Your task to perform on an android device: check battery use Image 0: 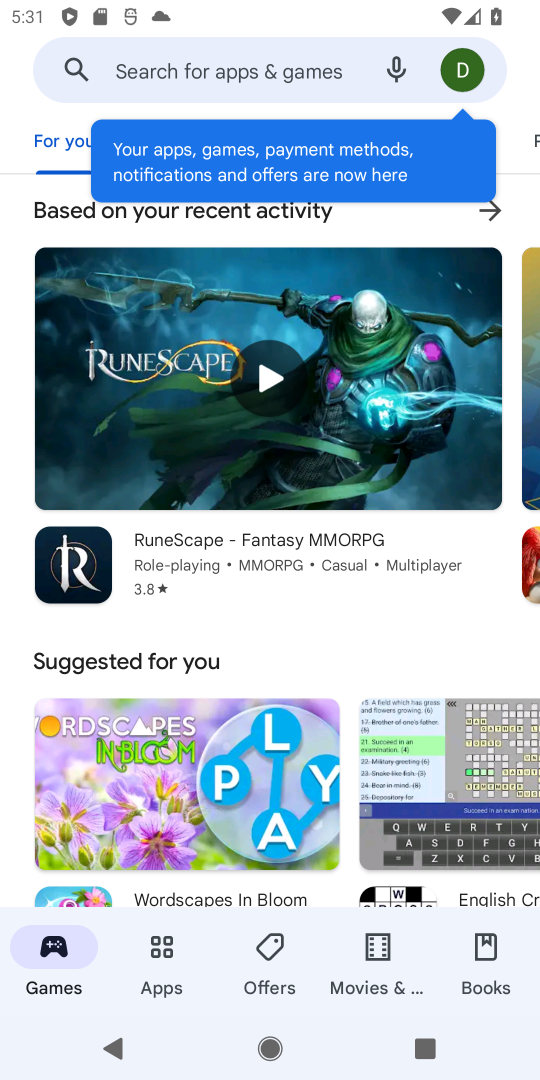
Step 0: press back button
Your task to perform on an android device: check battery use Image 1: 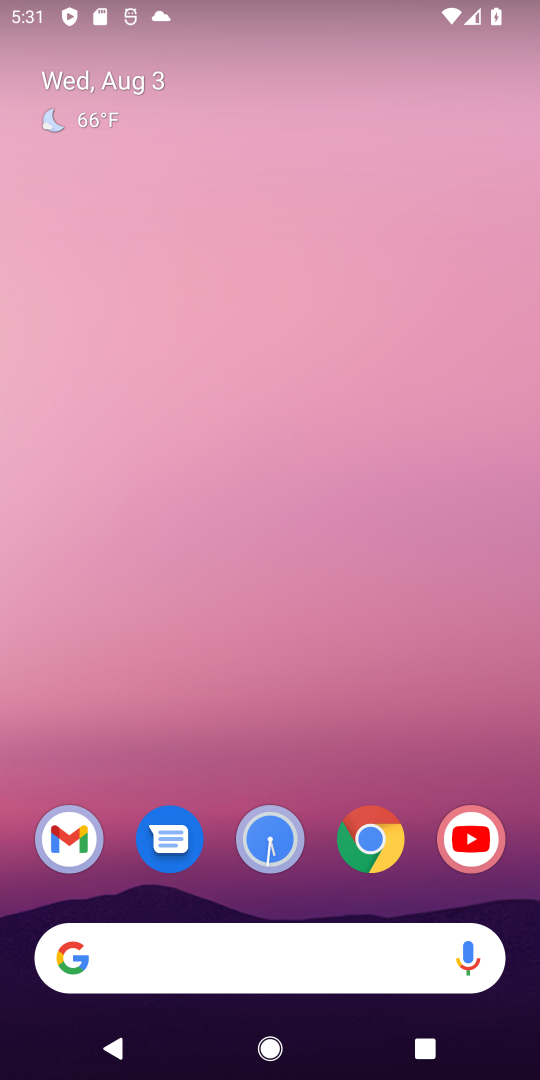
Step 1: drag from (308, 588) to (391, 11)
Your task to perform on an android device: check battery use Image 2: 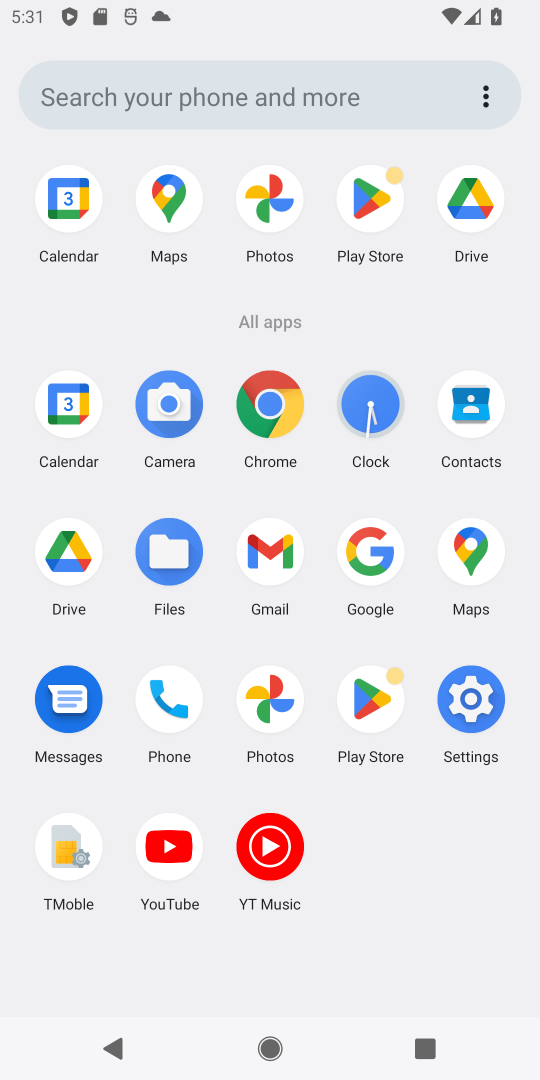
Step 2: click (481, 709)
Your task to perform on an android device: check battery use Image 3: 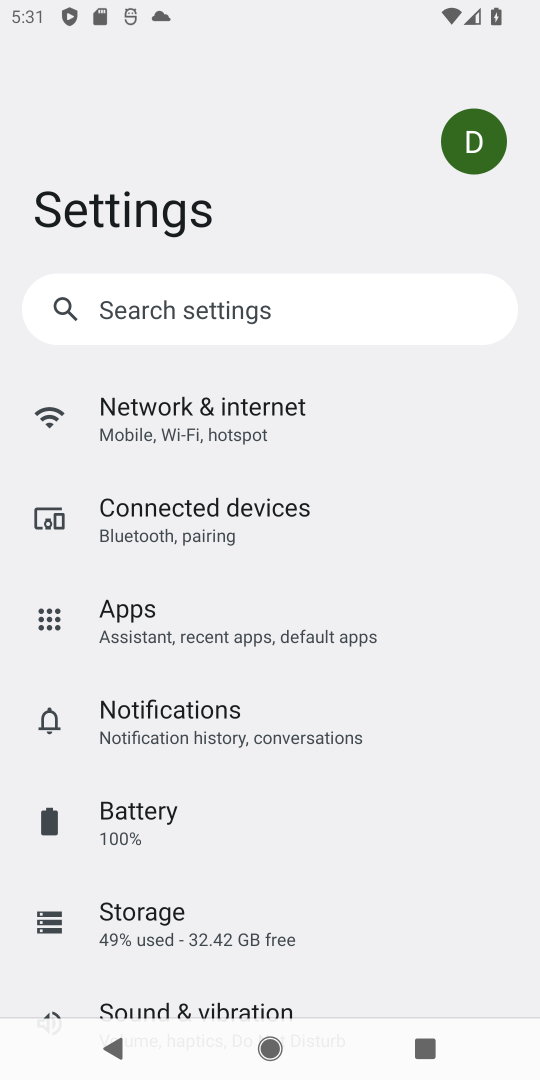
Step 3: click (147, 824)
Your task to perform on an android device: check battery use Image 4: 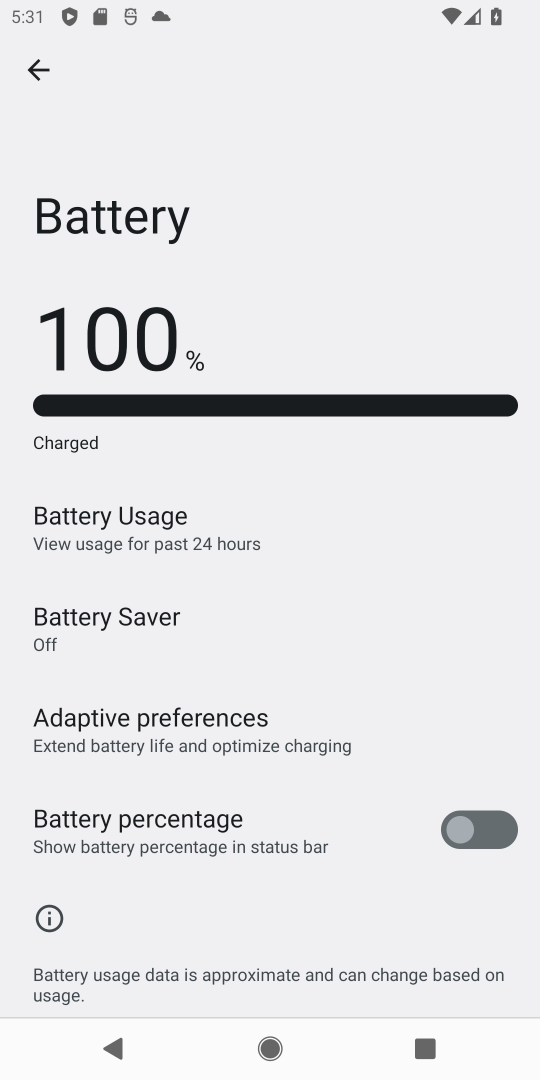
Step 4: click (210, 550)
Your task to perform on an android device: check battery use Image 5: 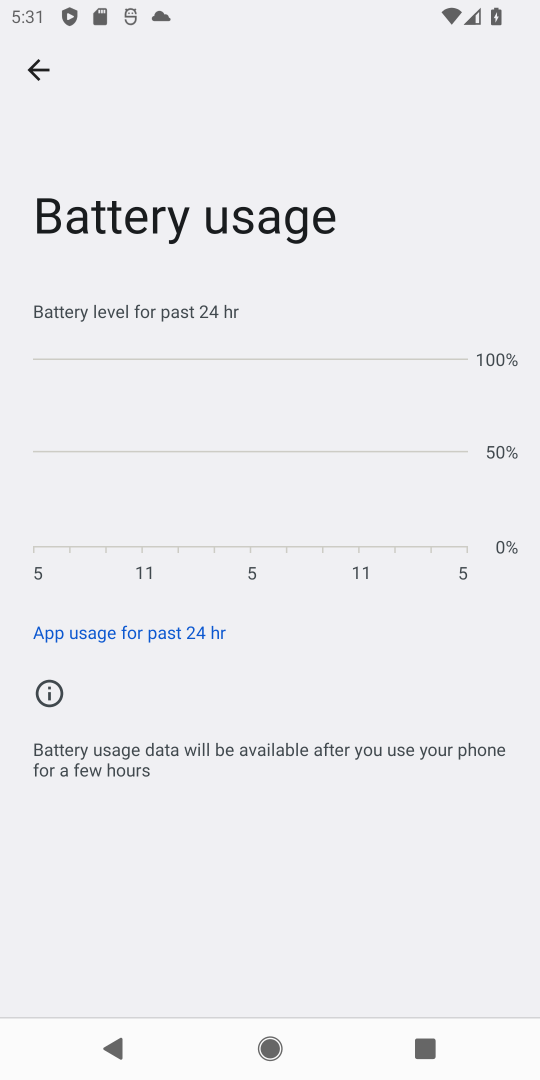
Step 5: task complete